Your task to perform on an android device: turn on showing notifications on the lock screen Image 0: 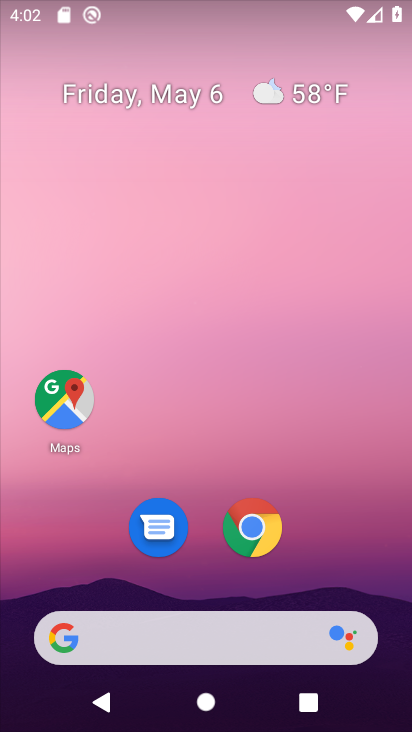
Step 0: drag from (188, 580) to (294, 28)
Your task to perform on an android device: turn on showing notifications on the lock screen Image 1: 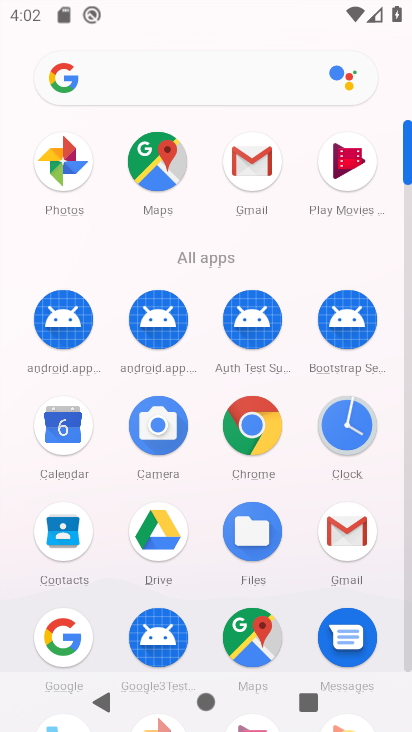
Step 1: drag from (186, 640) to (247, 317)
Your task to perform on an android device: turn on showing notifications on the lock screen Image 2: 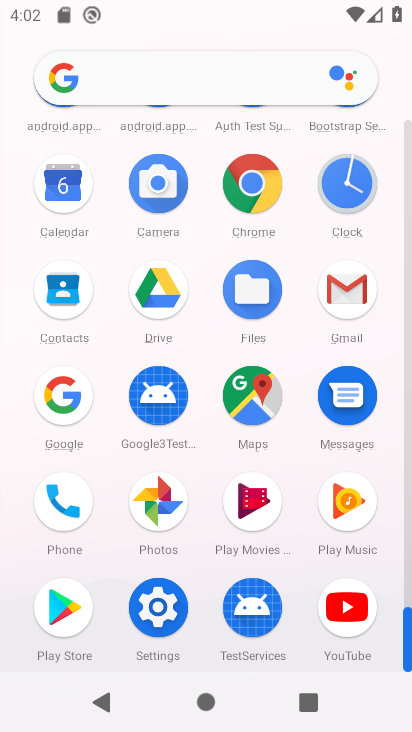
Step 2: click (173, 611)
Your task to perform on an android device: turn on showing notifications on the lock screen Image 3: 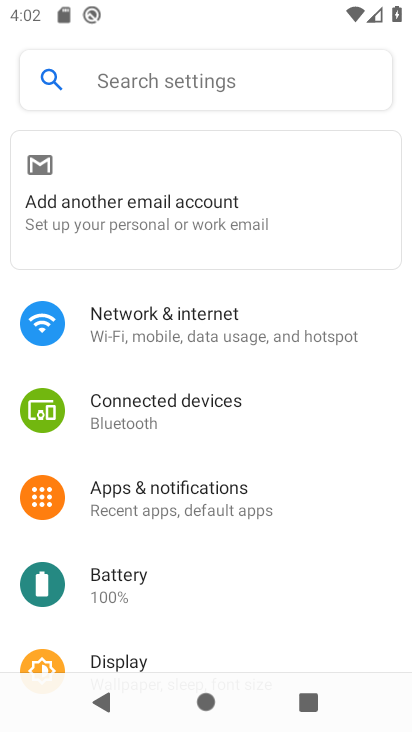
Step 3: drag from (160, 591) to (281, 208)
Your task to perform on an android device: turn on showing notifications on the lock screen Image 4: 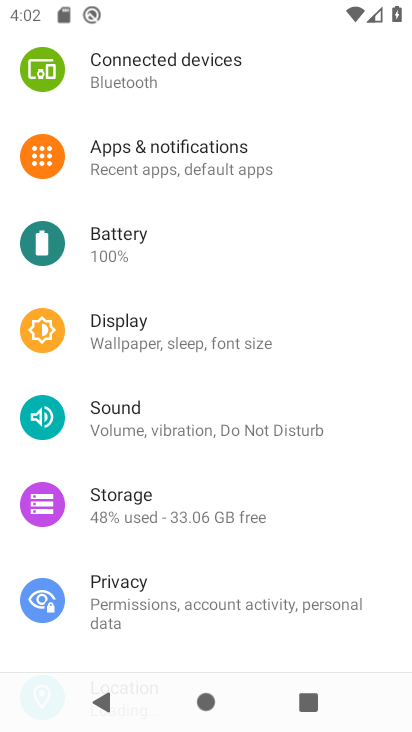
Step 4: click (142, 165)
Your task to perform on an android device: turn on showing notifications on the lock screen Image 5: 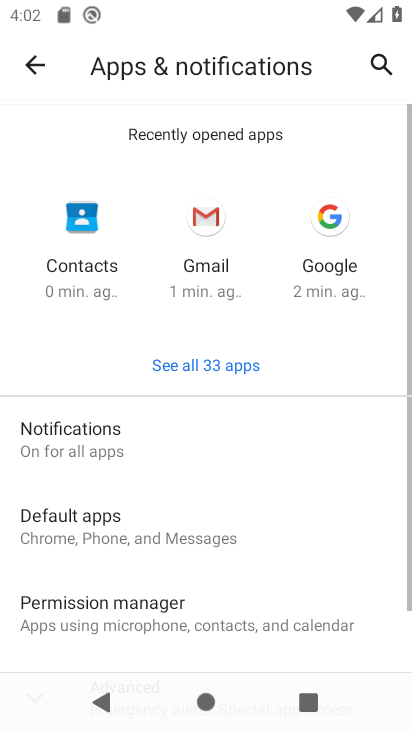
Step 5: drag from (160, 601) to (253, 271)
Your task to perform on an android device: turn on showing notifications on the lock screen Image 6: 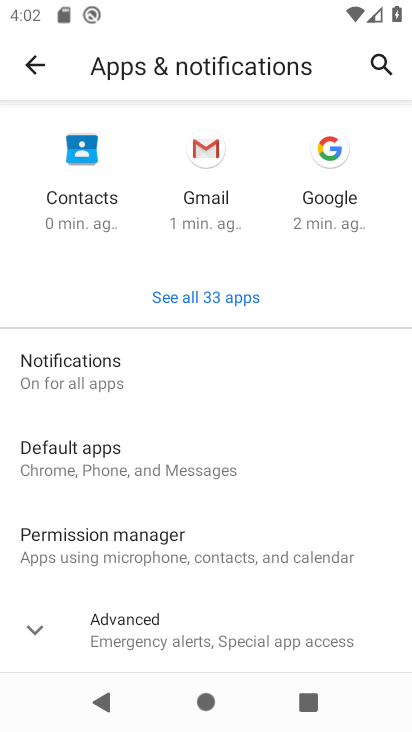
Step 6: click (166, 376)
Your task to perform on an android device: turn on showing notifications on the lock screen Image 7: 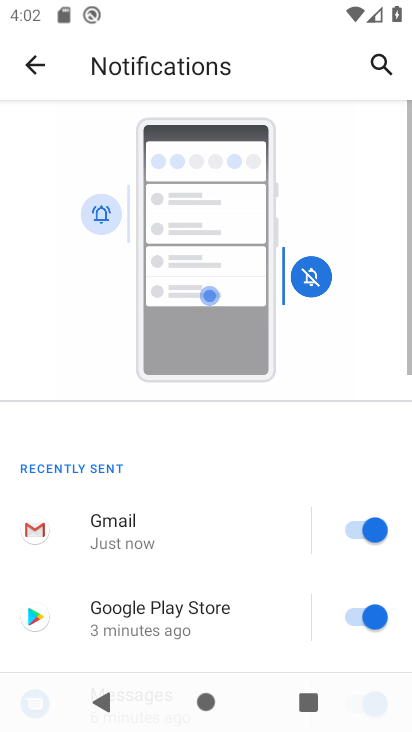
Step 7: drag from (188, 634) to (314, 60)
Your task to perform on an android device: turn on showing notifications on the lock screen Image 8: 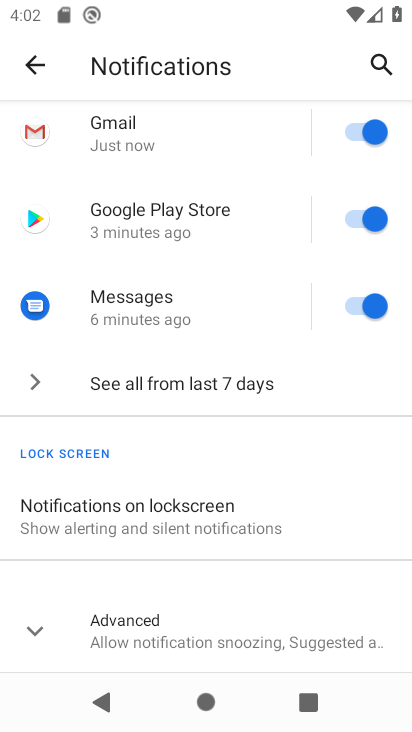
Step 8: click (205, 515)
Your task to perform on an android device: turn on showing notifications on the lock screen Image 9: 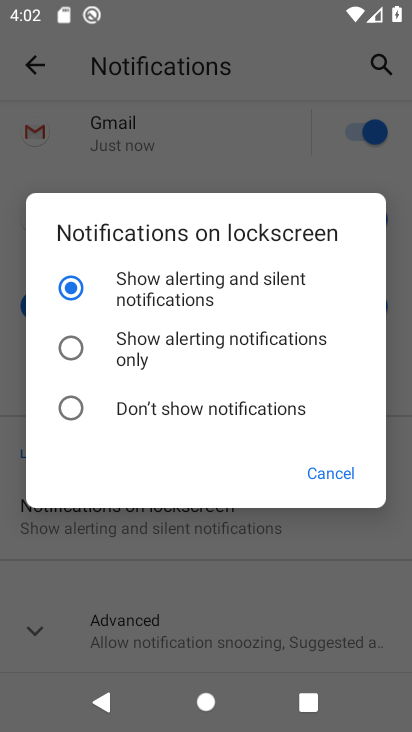
Step 9: task complete